Your task to perform on an android device: What's on my calendar today? Image 0: 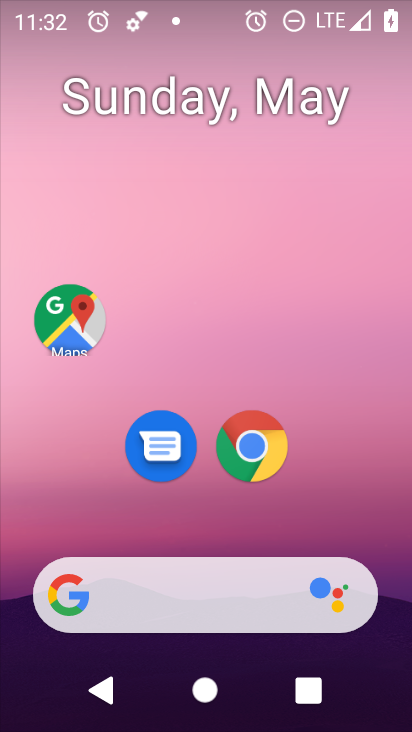
Step 0: drag from (386, 525) to (244, 23)
Your task to perform on an android device: What's on my calendar today? Image 1: 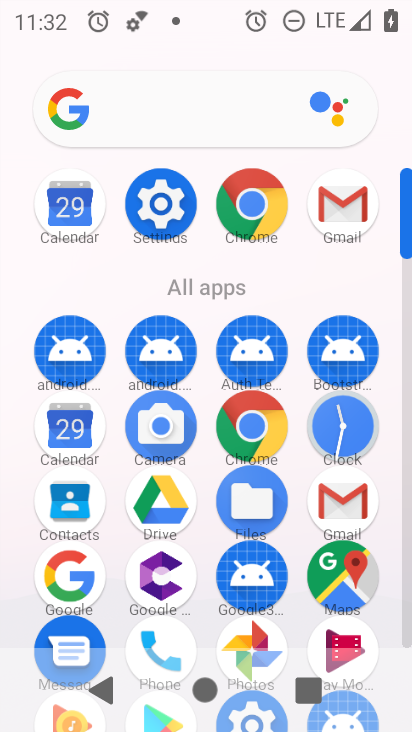
Step 1: drag from (8, 546) to (13, 244)
Your task to perform on an android device: What's on my calendar today? Image 2: 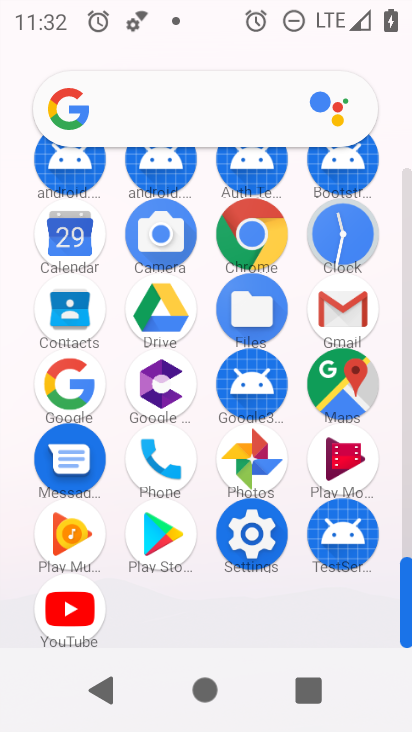
Step 2: click (21, 225)
Your task to perform on an android device: What's on my calendar today? Image 3: 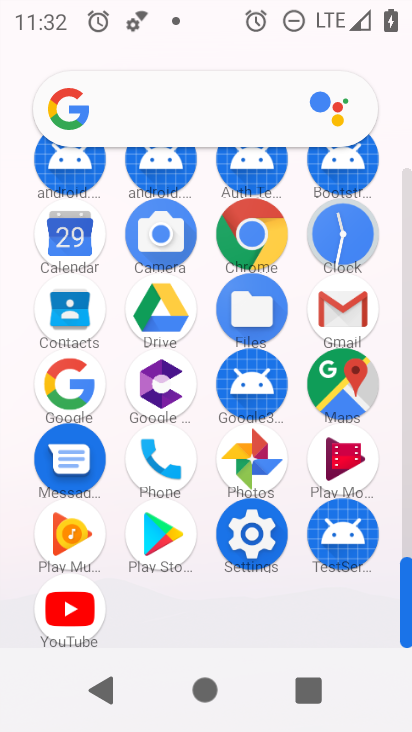
Step 3: click (12, 490)
Your task to perform on an android device: What's on my calendar today? Image 4: 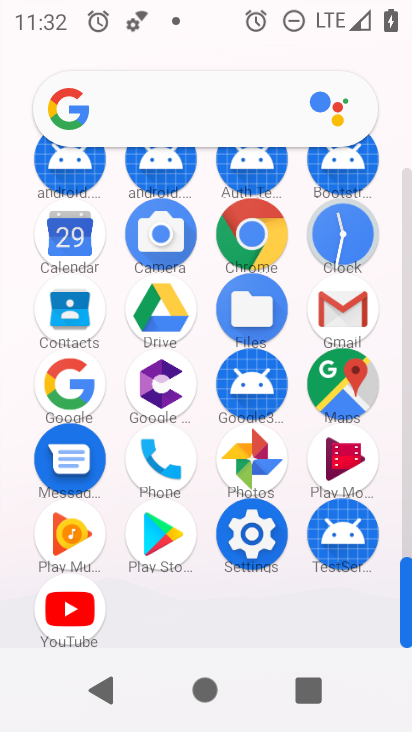
Step 4: drag from (7, 132) to (22, 493)
Your task to perform on an android device: What's on my calendar today? Image 5: 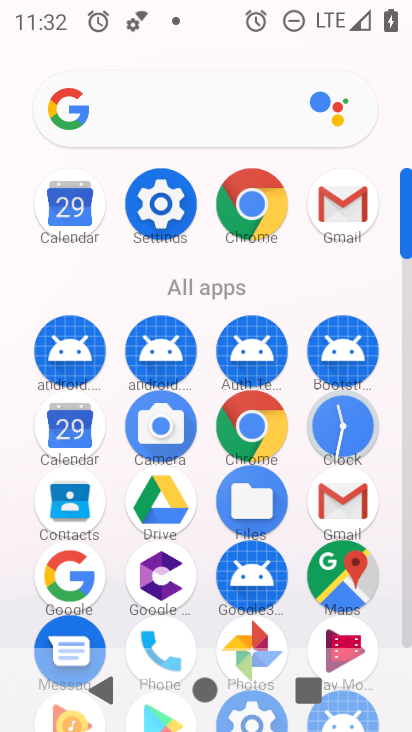
Step 5: click (67, 424)
Your task to perform on an android device: What's on my calendar today? Image 6: 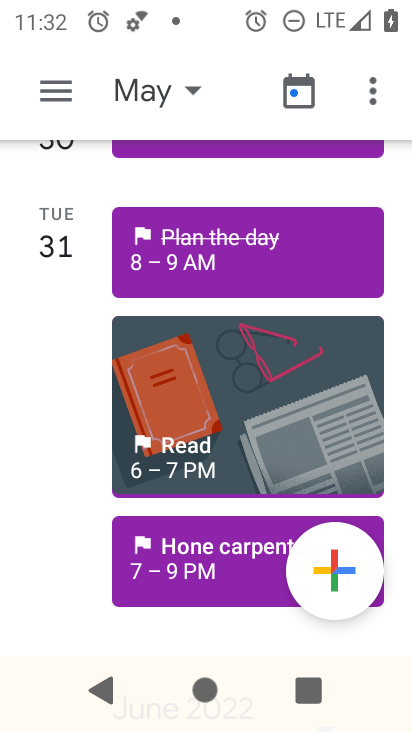
Step 6: drag from (220, 227) to (218, 498)
Your task to perform on an android device: What's on my calendar today? Image 7: 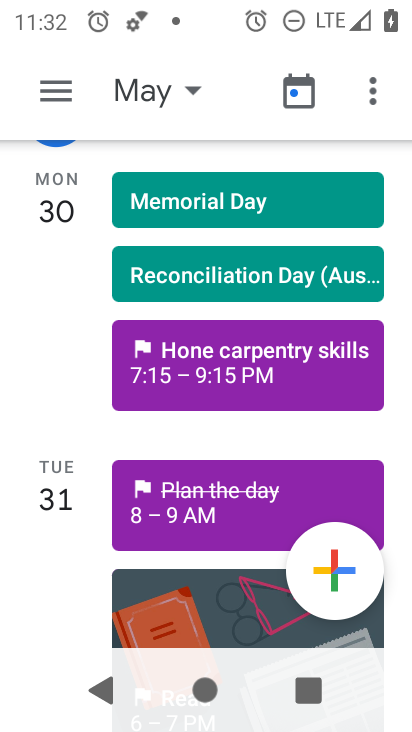
Step 7: drag from (250, 168) to (227, 476)
Your task to perform on an android device: What's on my calendar today? Image 8: 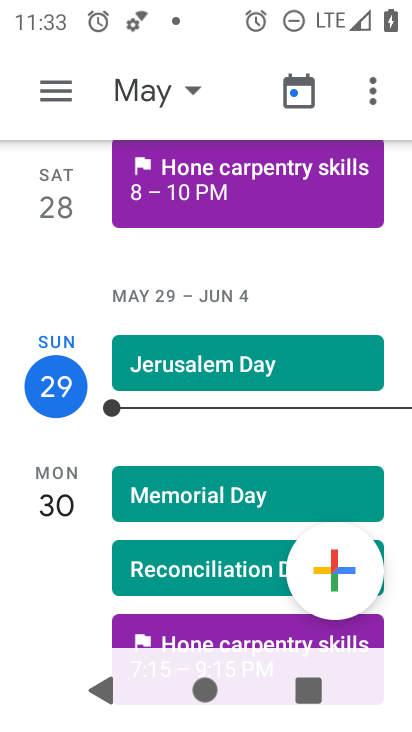
Step 8: drag from (233, 546) to (232, 218)
Your task to perform on an android device: What's on my calendar today? Image 9: 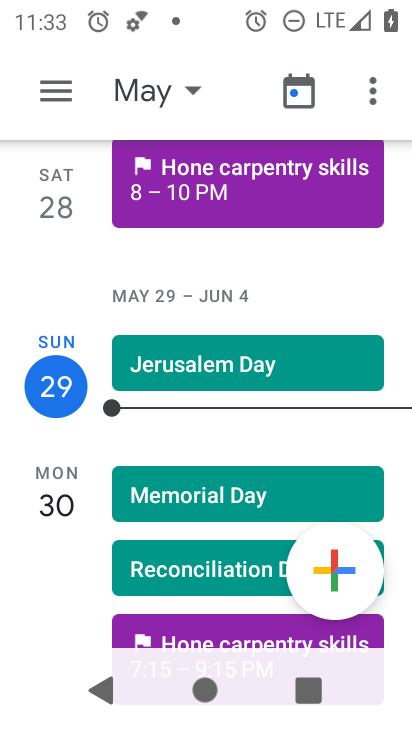
Step 9: click (299, 85)
Your task to perform on an android device: What's on my calendar today? Image 10: 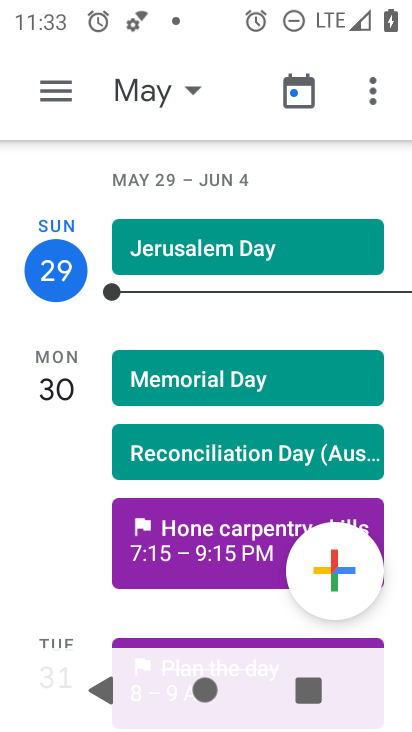
Step 10: task complete